Your task to perform on an android device: Go to location settings Image 0: 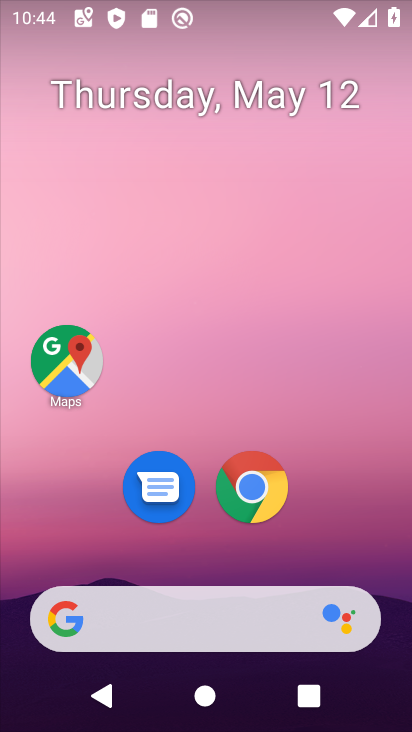
Step 0: press home button
Your task to perform on an android device: Go to location settings Image 1: 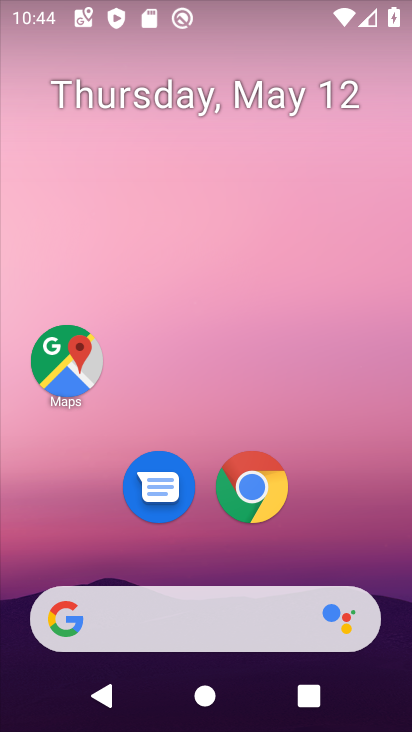
Step 1: drag from (69, 547) to (256, 204)
Your task to perform on an android device: Go to location settings Image 2: 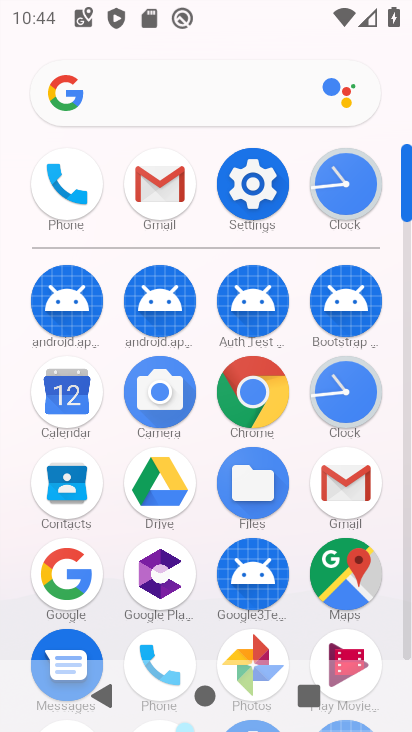
Step 2: click (245, 185)
Your task to perform on an android device: Go to location settings Image 3: 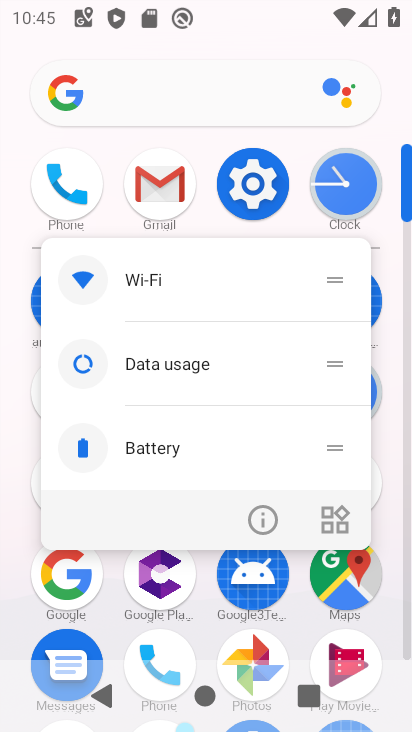
Step 3: click (246, 201)
Your task to perform on an android device: Go to location settings Image 4: 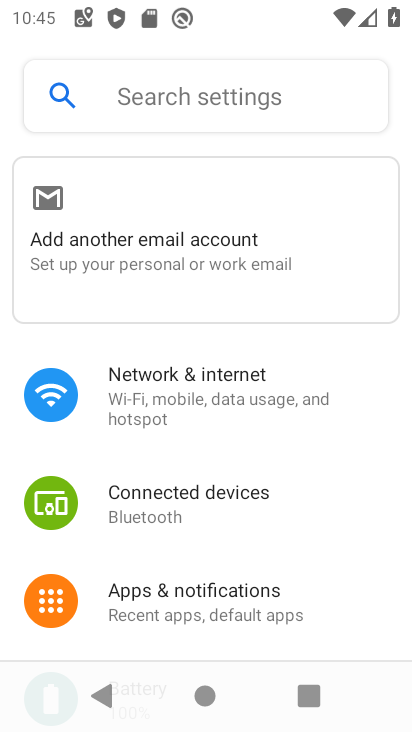
Step 4: drag from (70, 604) to (317, 155)
Your task to perform on an android device: Go to location settings Image 5: 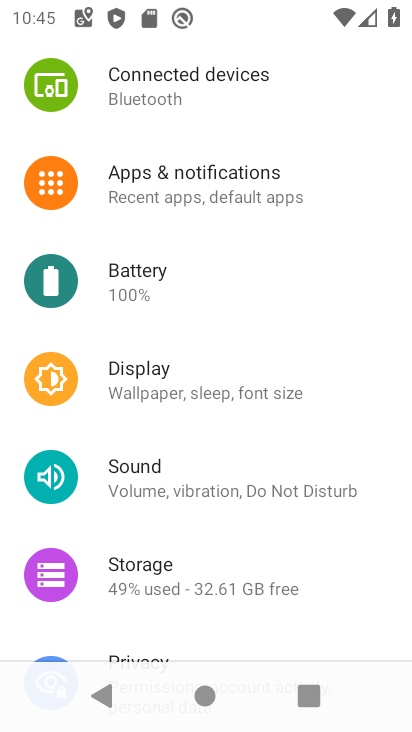
Step 5: drag from (43, 605) to (230, 215)
Your task to perform on an android device: Go to location settings Image 6: 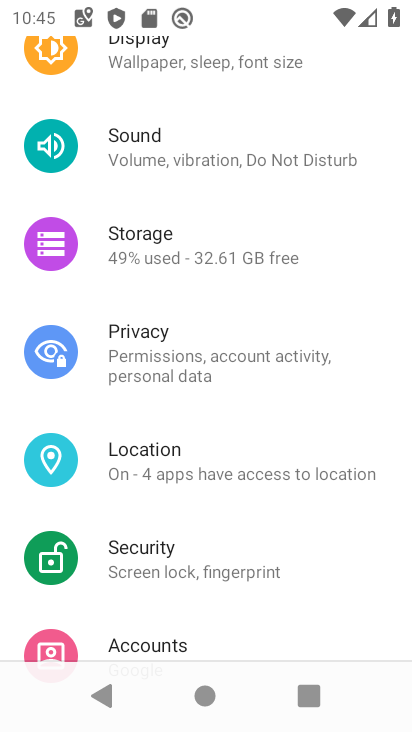
Step 6: click (146, 458)
Your task to perform on an android device: Go to location settings Image 7: 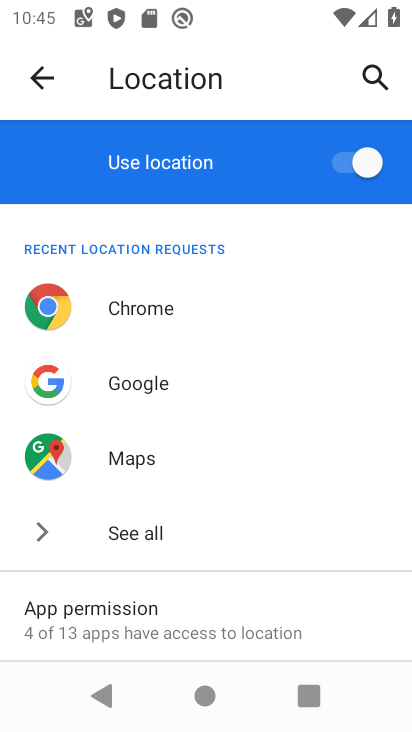
Step 7: task complete